Your task to perform on an android device: delete browsing data in the chrome app Image 0: 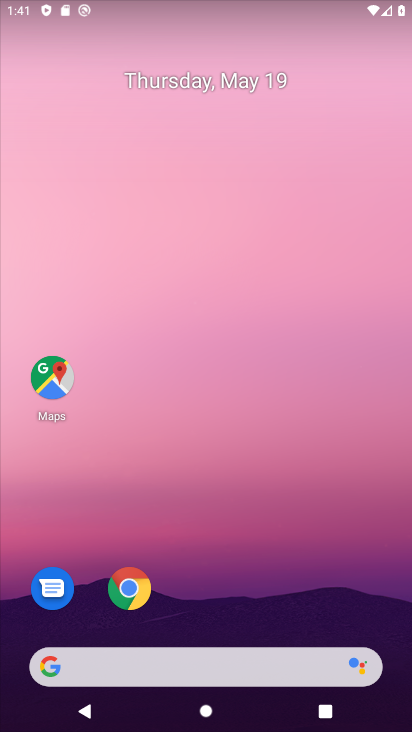
Step 0: click (129, 580)
Your task to perform on an android device: delete browsing data in the chrome app Image 1: 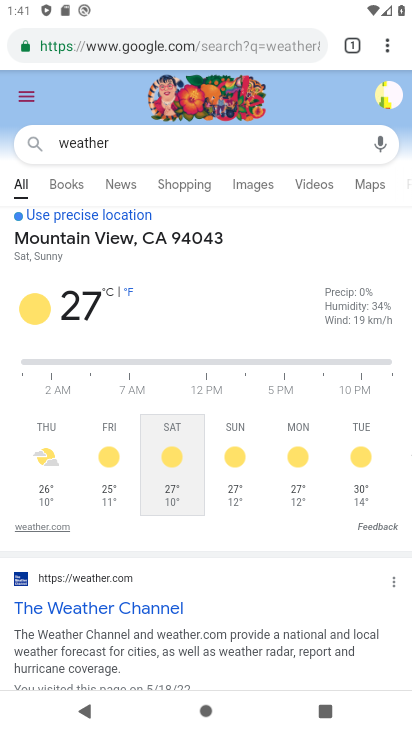
Step 1: drag from (386, 29) to (219, 257)
Your task to perform on an android device: delete browsing data in the chrome app Image 2: 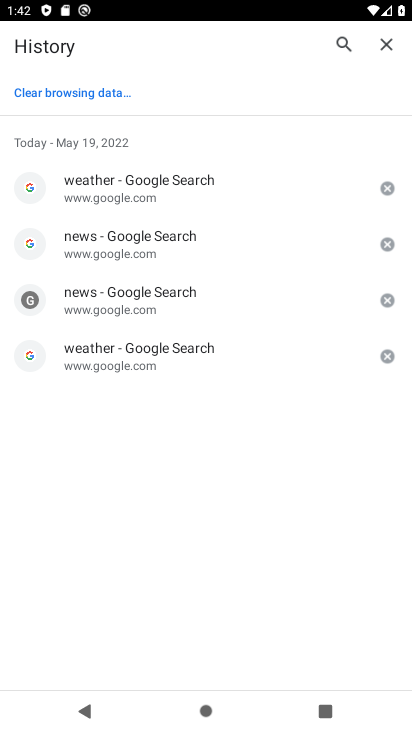
Step 2: click (100, 87)
Your task to perform on an android device: delete browsing data in the chrome app Image 3: 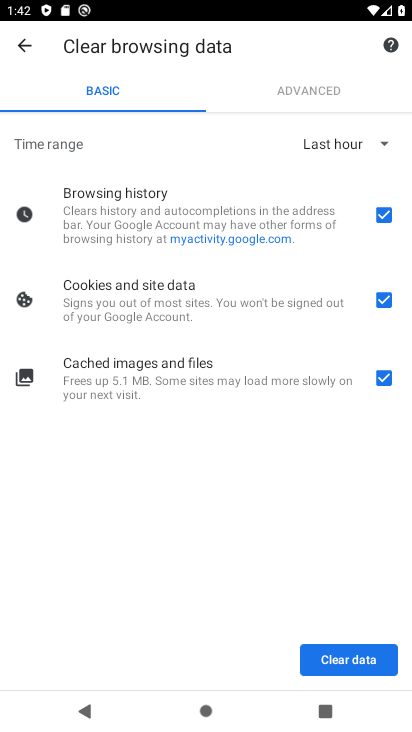
Step 3: click (329, 144)
Your task to perform on an android device: delete browsing data in the chrome app Image 4: 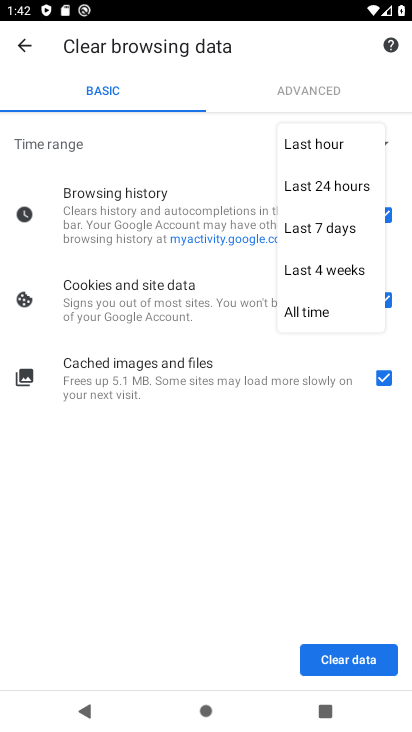
Step 4: click (309, 321)
Your task to perform on an android device: delete browsing data in the chrome app Image 5: 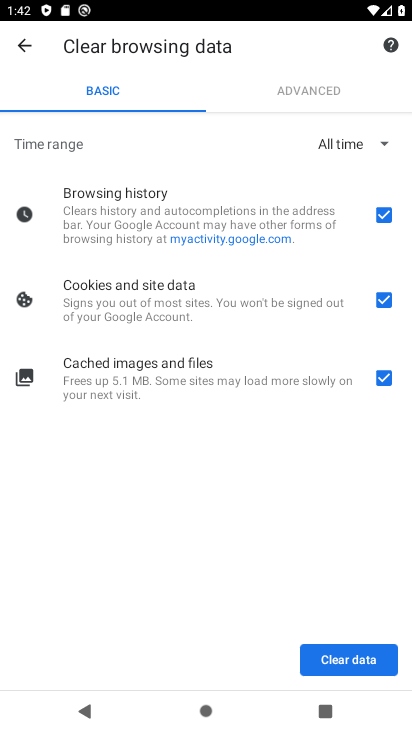
Step 5: click (352, 658)
Your task to perform on an android device: delete browsing data in the chrome app Image 6: 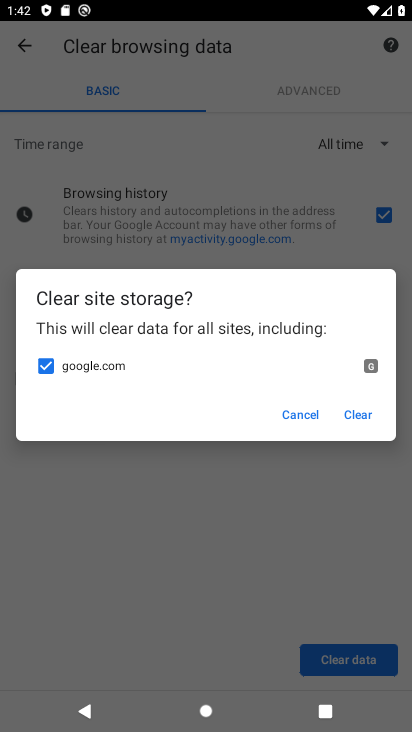
Step 6: click (357, 411)
Your task to perform on an android device: delete browsing data in the chrome app Image 7: 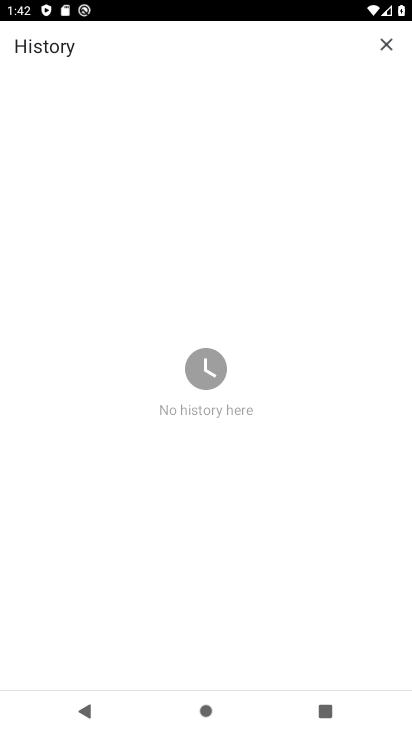
Step 7: task complete